Your task to perform on an android device: turn off notifications settings in the gmail app Image 0: 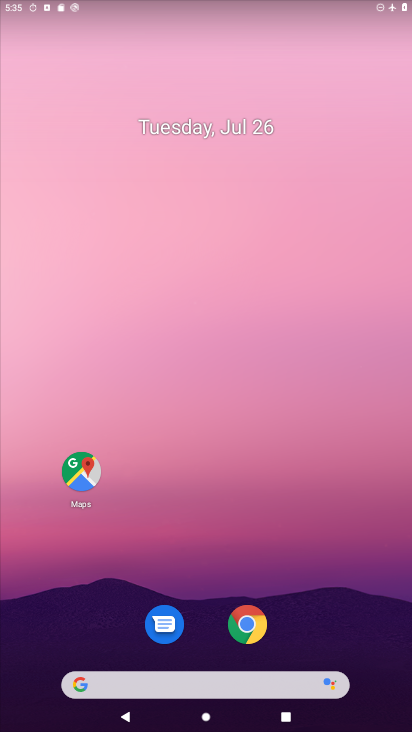
Step 0: drag from (215, 681) to (319, 16)
Your task to perform on an android device: turn off notifications settings in the gmail app Image 1: 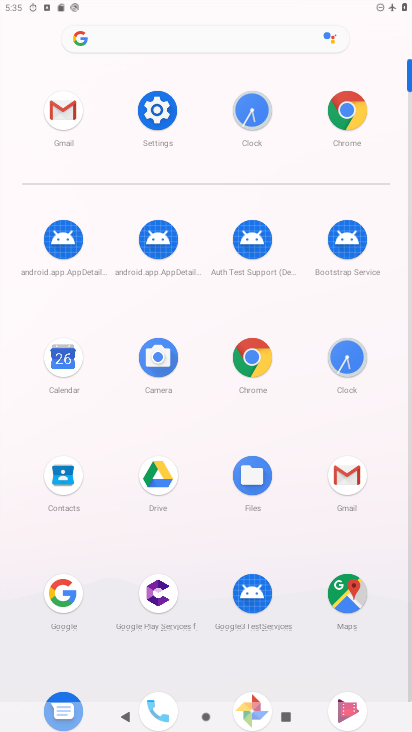
Step 1: click (353, 480)
Your task to perform on an android device: turn off notifications settings in the gmail app Image 2: 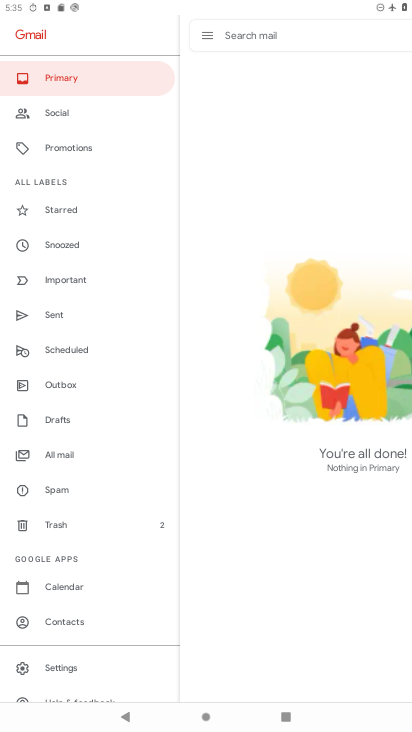
Step 2: click (70, 668)
Your task to perform on an android device: turn off notifications settings in the gmail app Image 3: 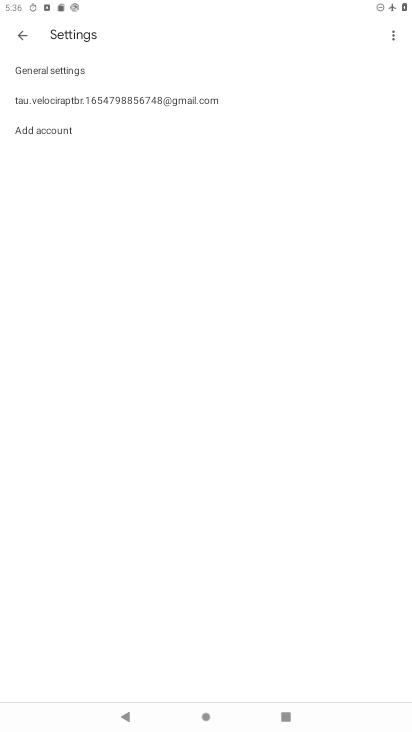
Step 3: click (62, 102)
Your task to perform on an android device: turn off notifications settings in the gmail app Image 4: 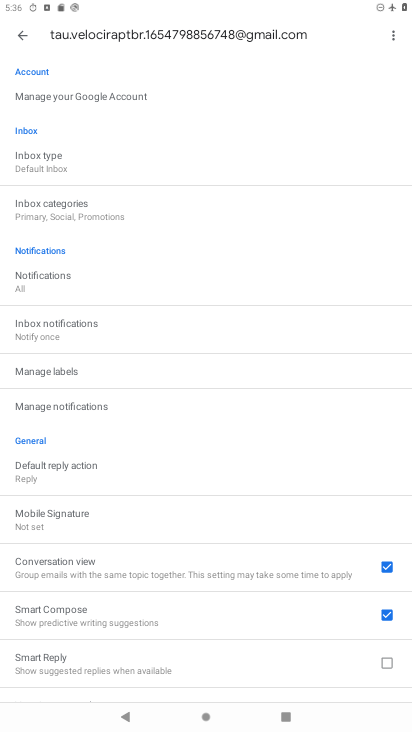
Step 4: click (64, 410)
Your task to perform on an android device: turn off notifications settings in the gmail app Image 5: 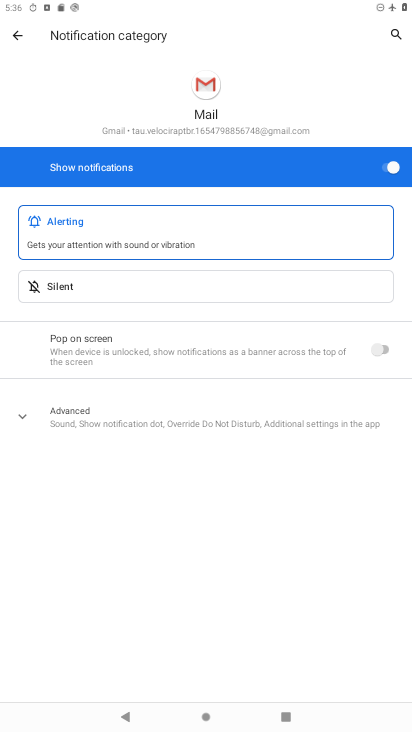
Step 5: click (382, 166)
Your task to perform on an android device: turn off notifications settings in the gmail app Image 6: 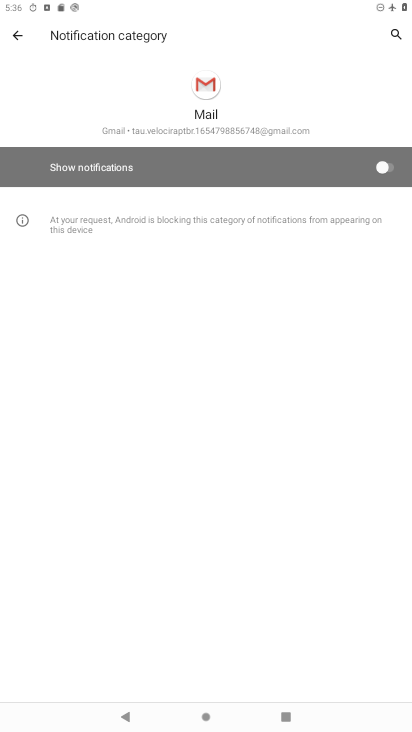
Step 6: task complete